Your task to perform on an android device: find photos in the google photos app Image 0: 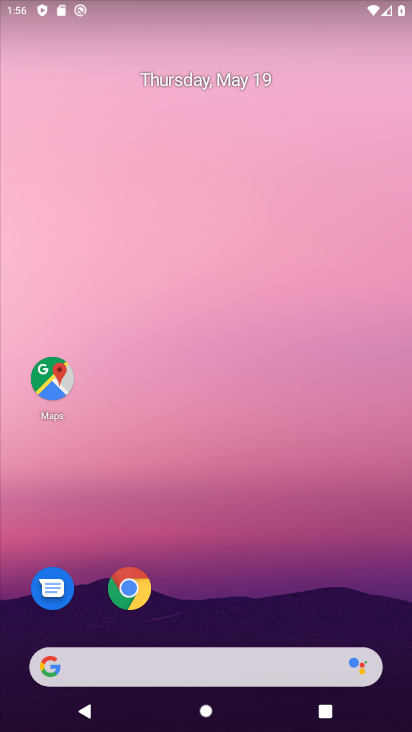
Step 0: drag from (237, 582) to (243, 86)
Your task to perform on an android device: find photos in the google photos app Image 1: 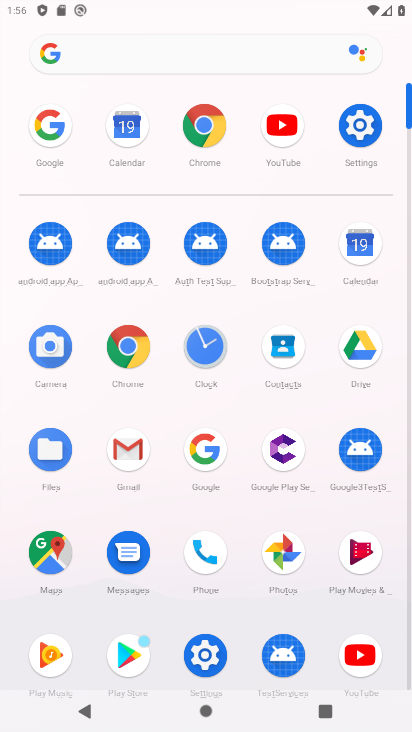
Step 1: click (278, 546)
Your task to perform on an android device: find photos in the google photos app Image 2: 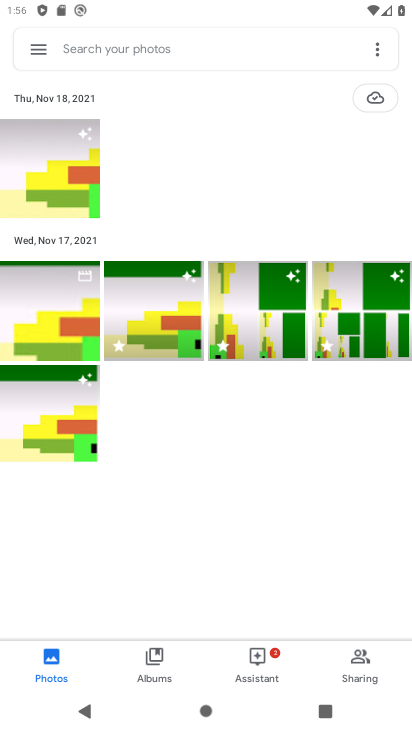
Step 2: task complete